Your task to perform on an android device: Open internet settings Image 0: 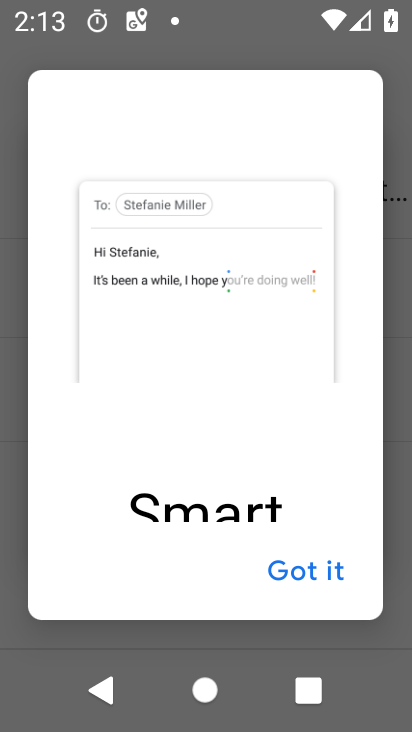
Step 0: press home button
Your task to perform on an android device: Open internet settings Image 1: 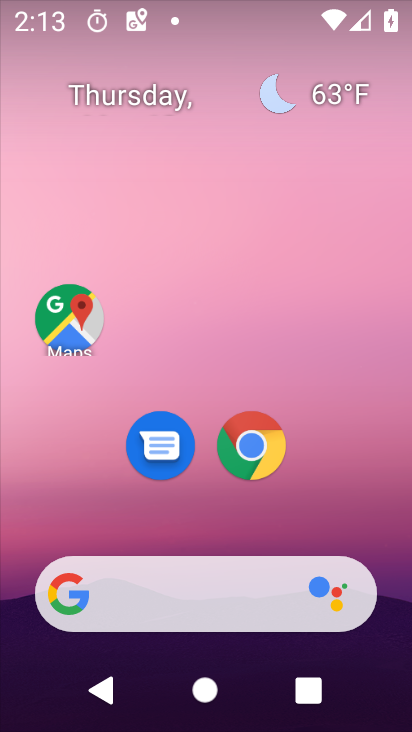
Step 1: drag from (187, 598) to (246, 61)
Your task to perform on an android device: Open internet settings Image 2: 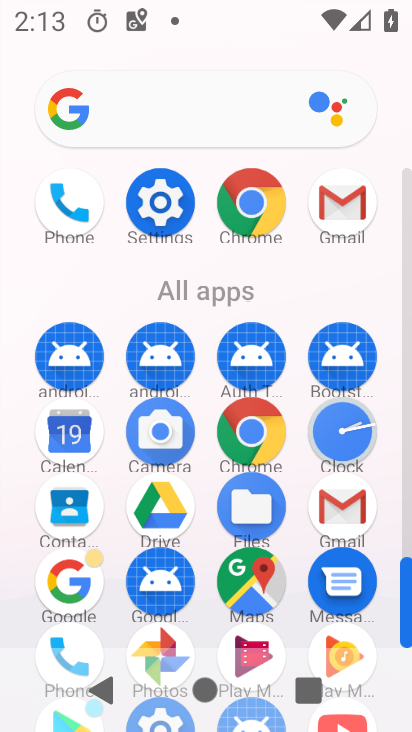
Step 2: click (157, 230)
Your task to perform on an android device: Open internet settings Image 3: 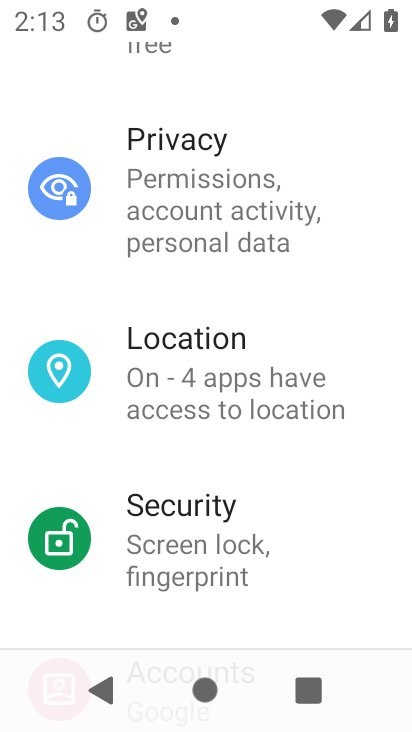
Step 3: drag from (195, 136) to (212, 687)
Your task to perform on an android device: Open internet settings Image 4: 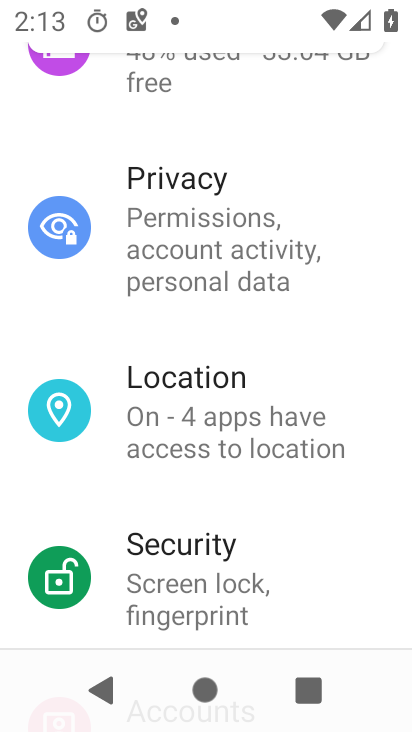
Step 4: drag from (230, 153) to (242, 633)
Your task to perform on an android device: Open internet settings Image 5: 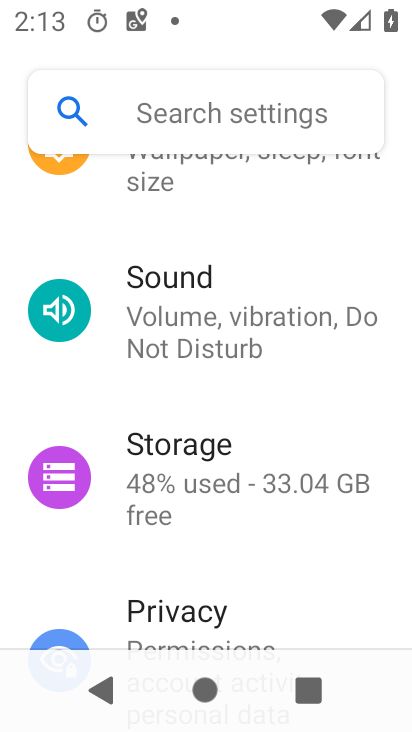
Step 5: drag from (232, 204) to (221, 698)
Your task to perform on an android device: Open internet settings Image 6: 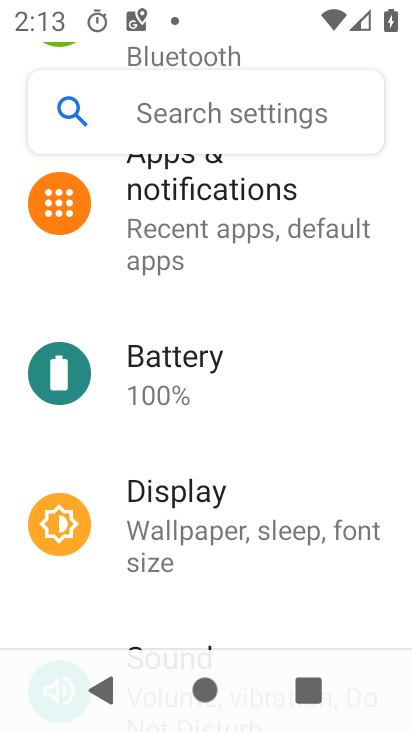
Step 6: drag from (206, 256) to (236, 648)
Your task to perform on an android device: Open internet settings Image 7: 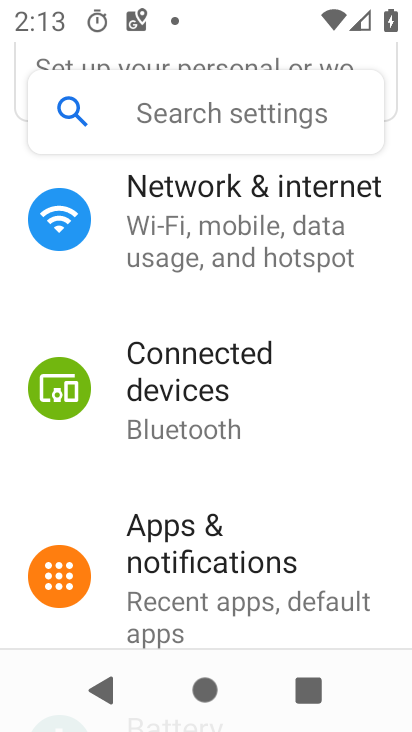
Step 7: click (299, 220)
Your task to perform on an android device: Open internet settings Image 8: 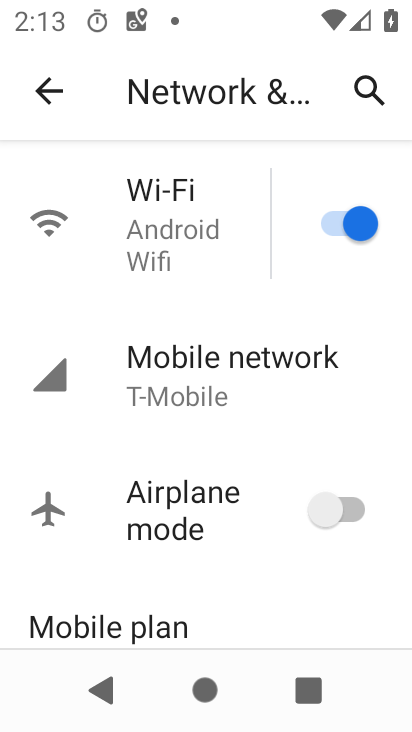
Step 8: task complete